Your task to perform on an android device: What's on my calendar today? Image 0: 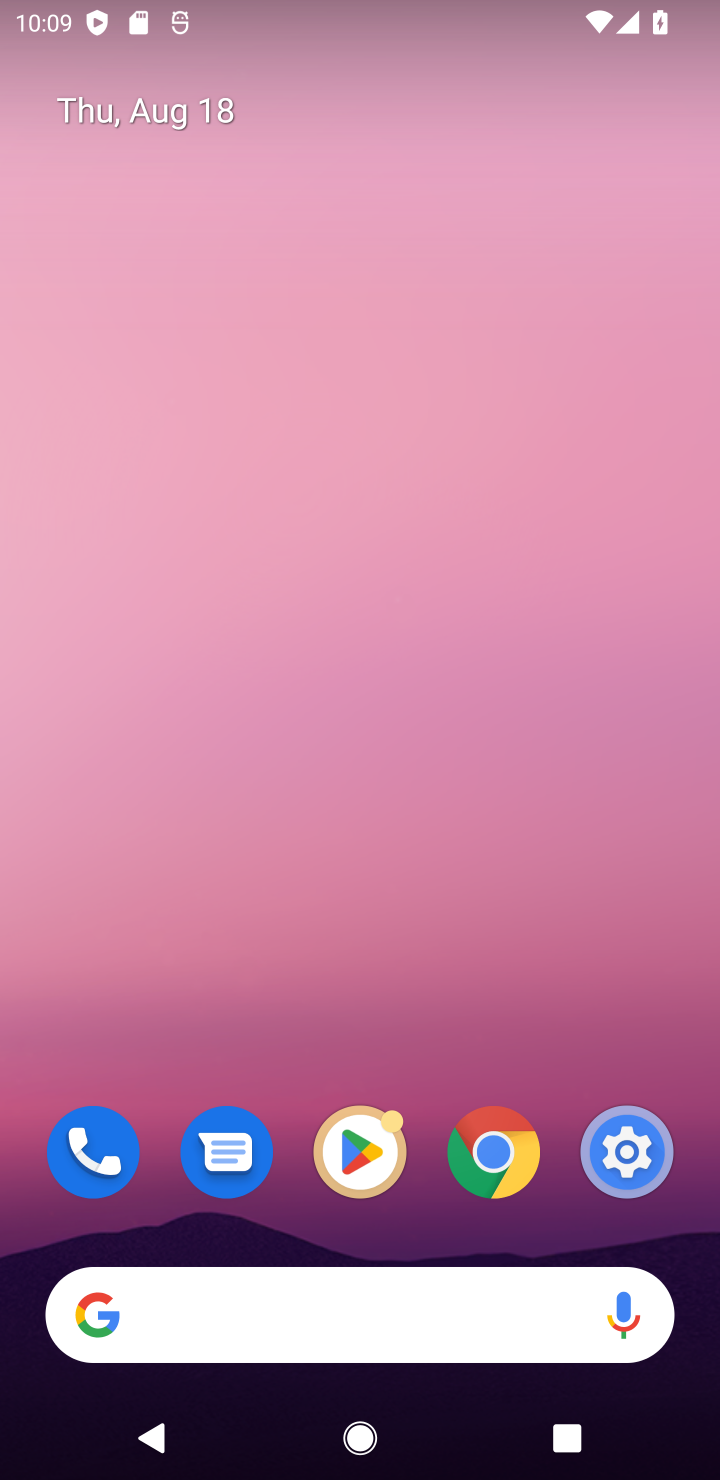
Step 0: drag from (414, 999) to (563, 3)
Your task to perform on an android device: What's on my calendar today? Image 1: 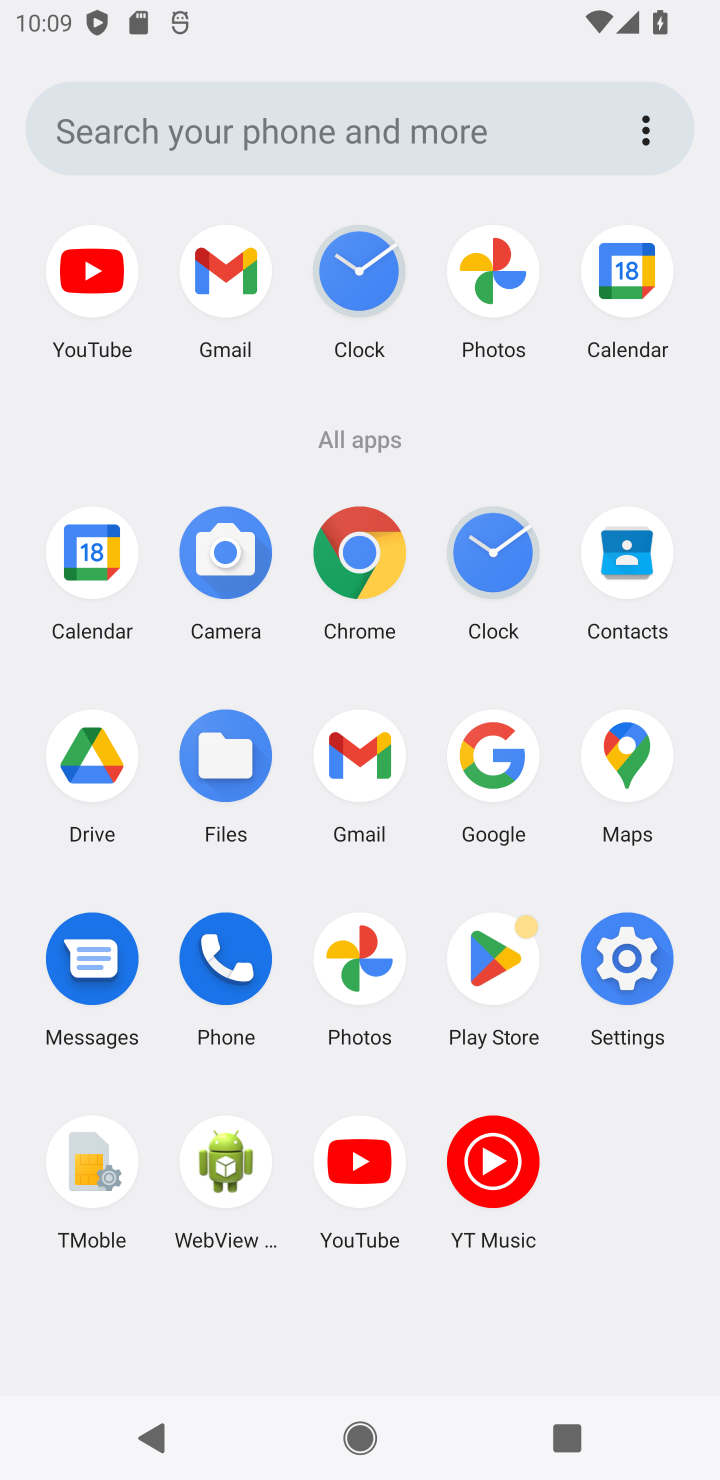
Step 1: click (105, 559)
Your task to perform on an android device: What's on my calendar today? Image 2: 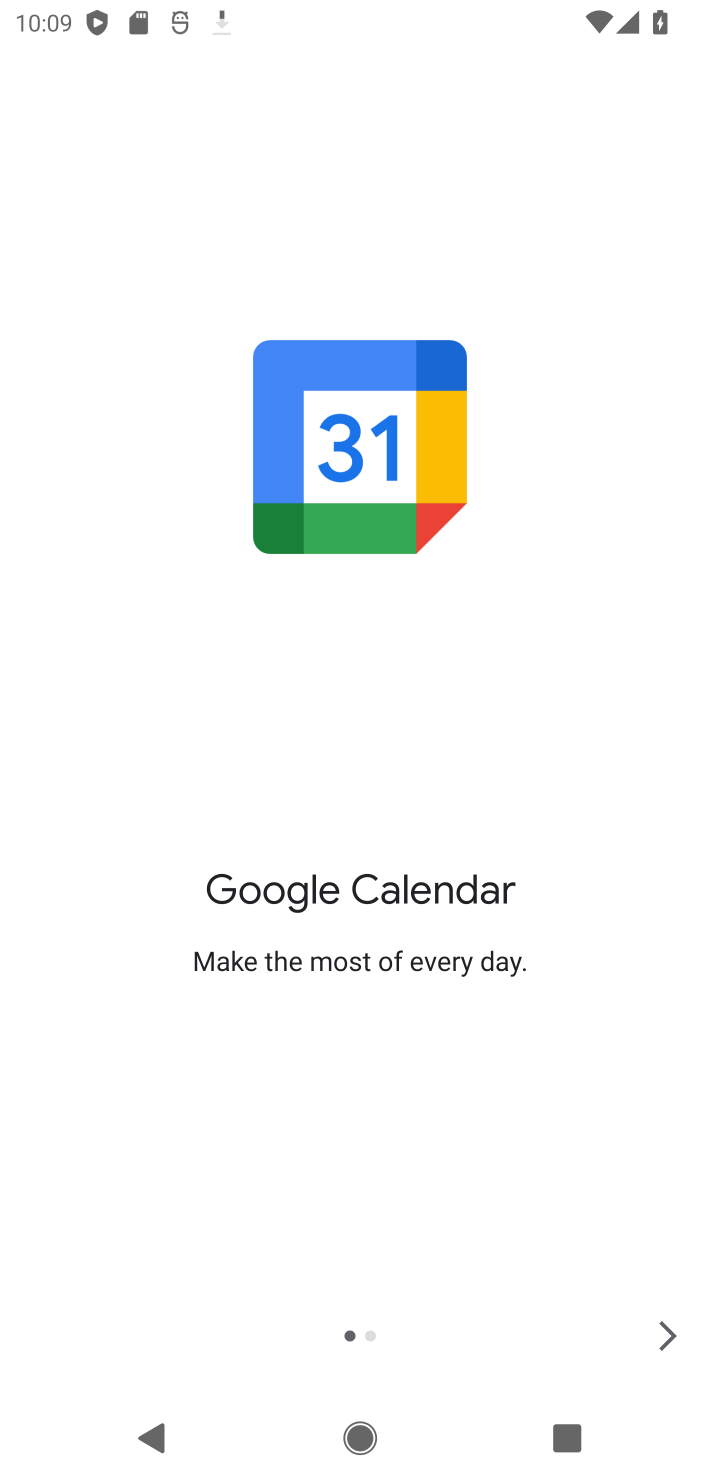
Step 2: click (668, 1326)
Your task to perform on an android device: What's on my calendar today? Image 3: 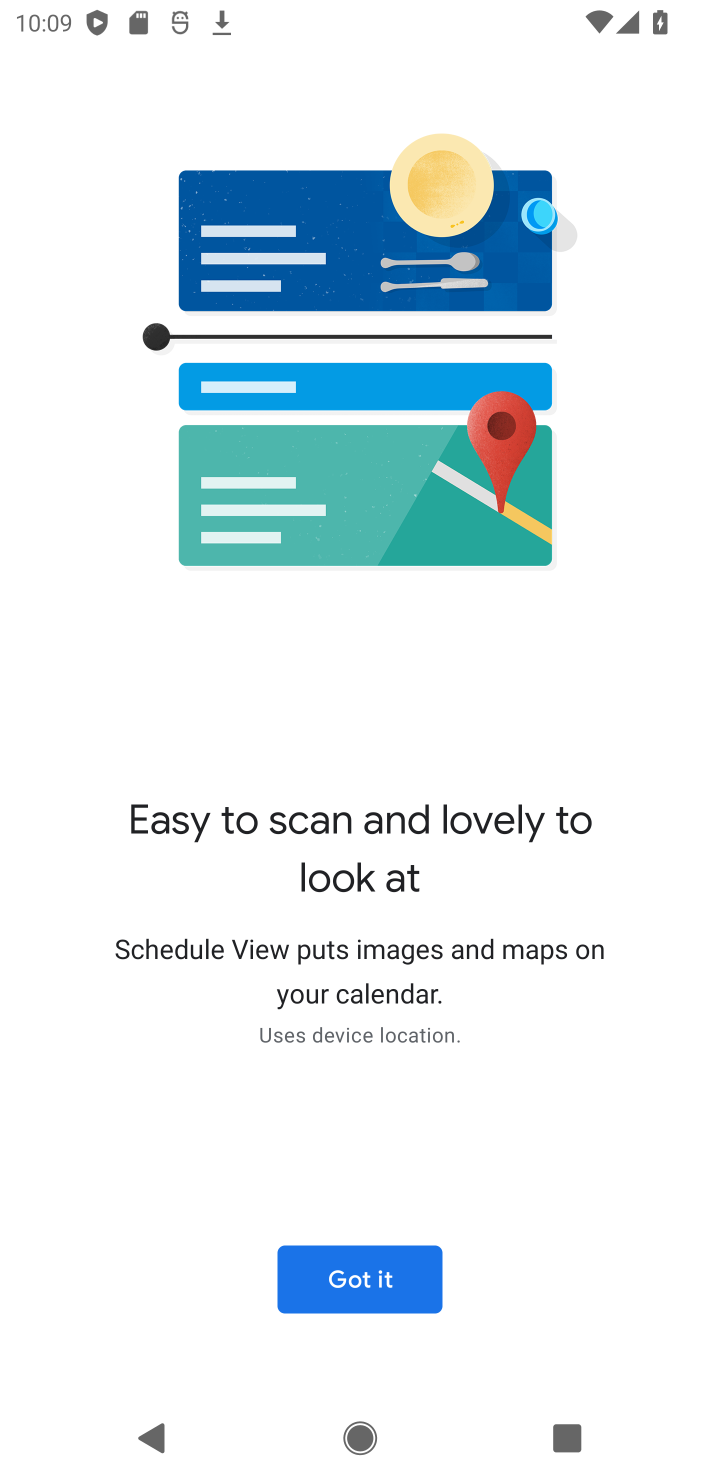
Step 3: click (414, 1286)
Your task to perform on an android device: What's on my calendar today? Image 4: 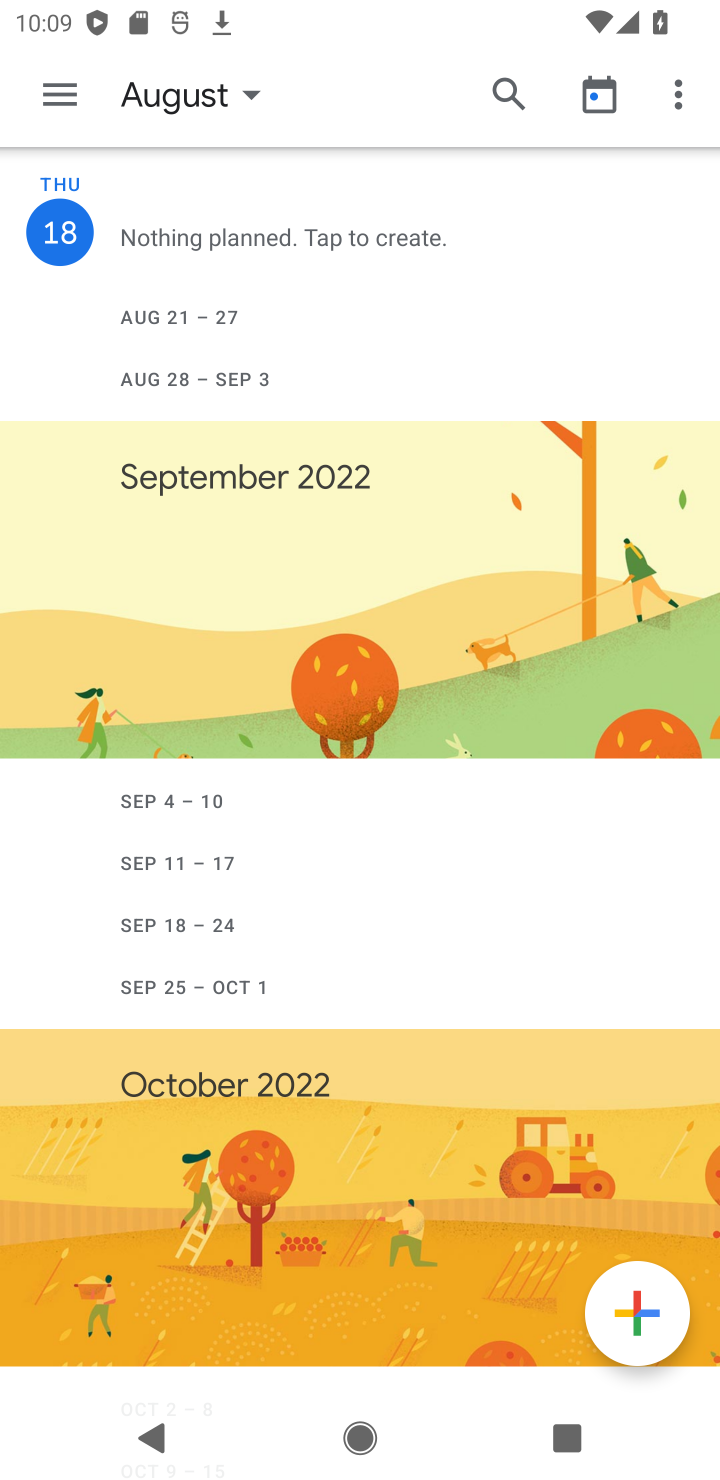
Step 4: click (73, 231)
Your task to perform on an android device: What's on my calendar today? Image 5: 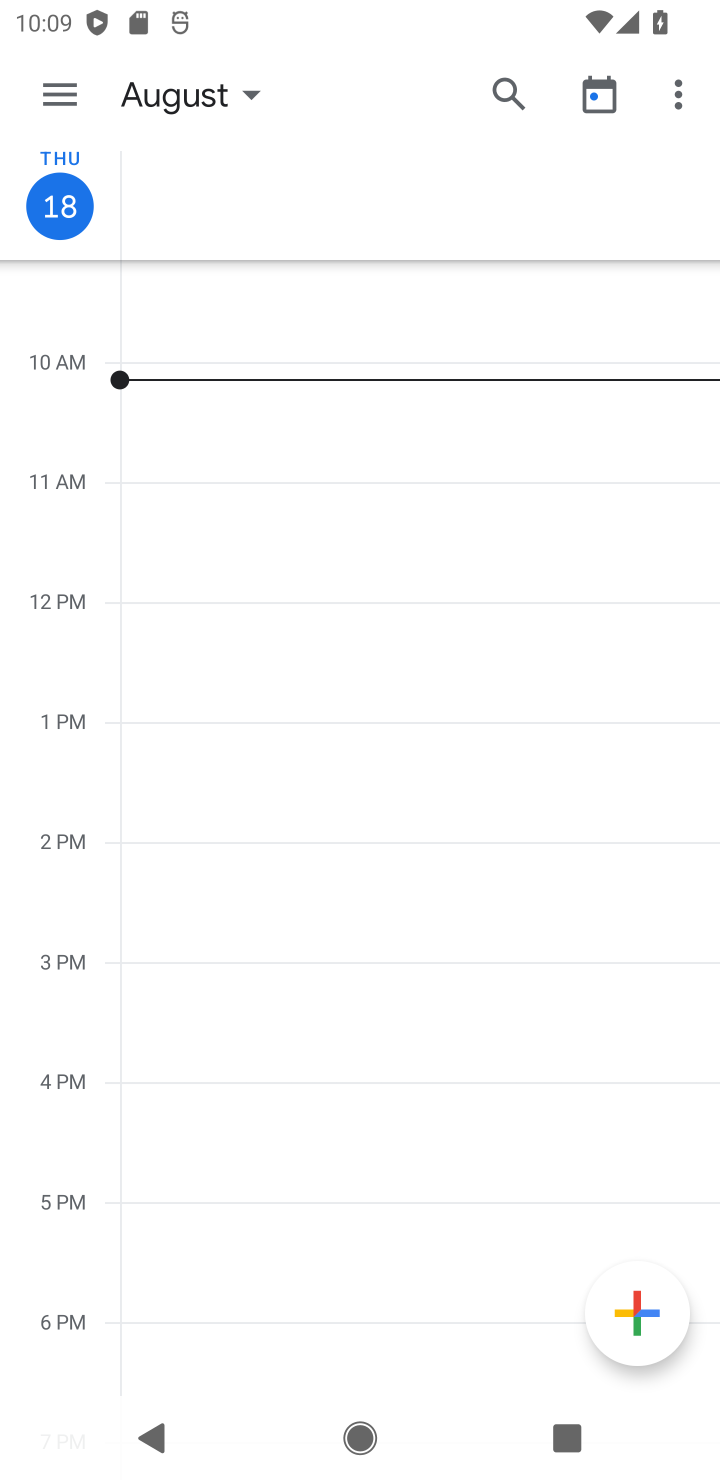
Step 5: task complete